Your task to perform on an android device: turn on airplane mode Image 0: 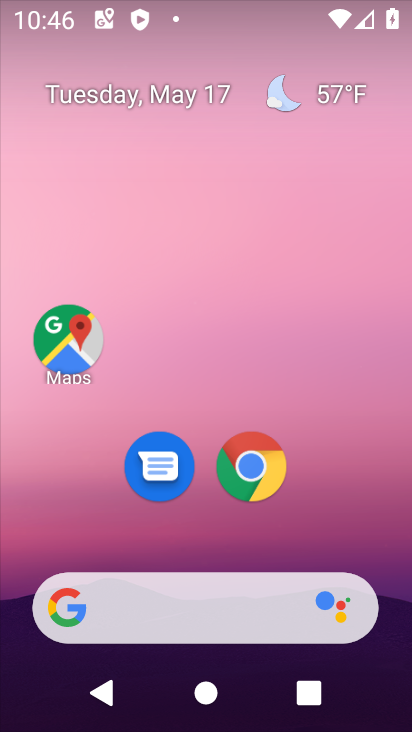
Step 0: drag from (293, 630) to (356, 201)
Your task to perform on an android device: turn on airplane mode Image 1: 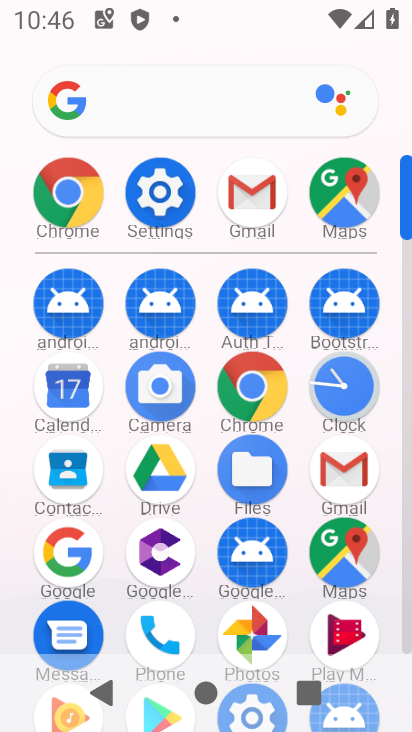
Step 1: click (174, 187)
Your task to perform on an android device: turn on airplane mode Image 2: 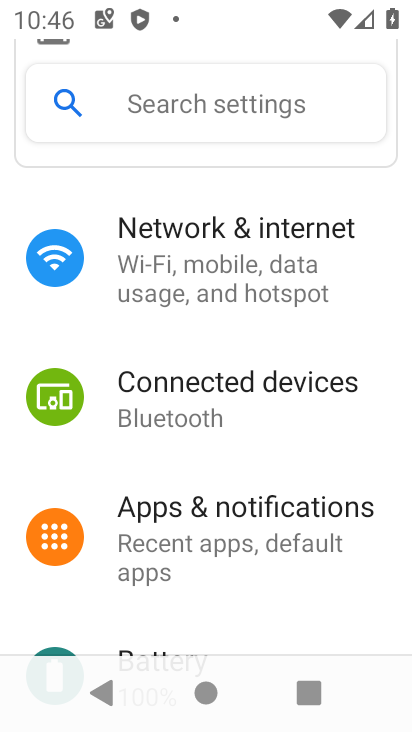
Step 2: click (177, 247)
Your task to perform on an android device: turn on airplane mode Image 3: 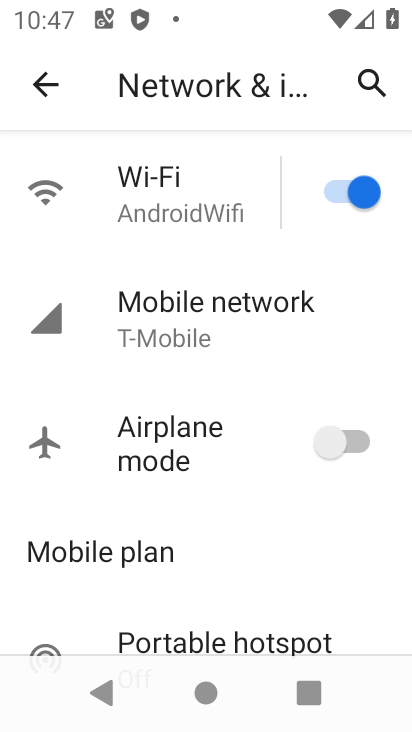
Step 3: click (236, 426)
Your task to perform on an android device: turn on airplane mode Image 4: 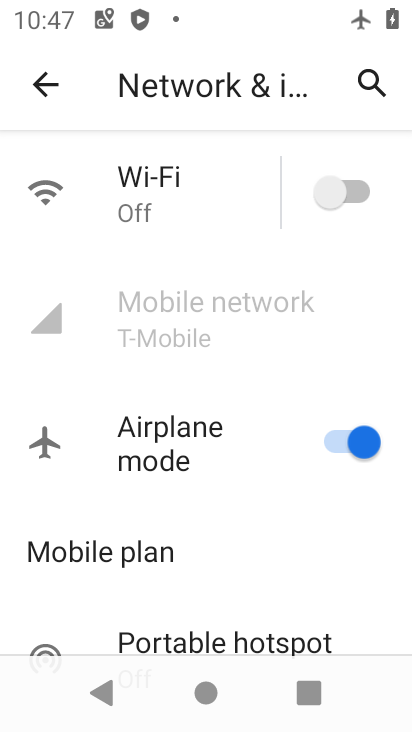
Step 4: task complete